Your task to perform on an android device: Open maps Image 0: 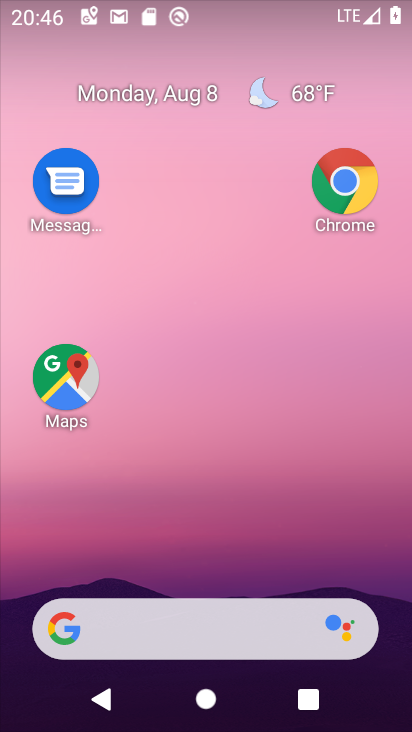
Step 0: click (64, 364)
Your task to perform on an android device: Open maps Image 1: 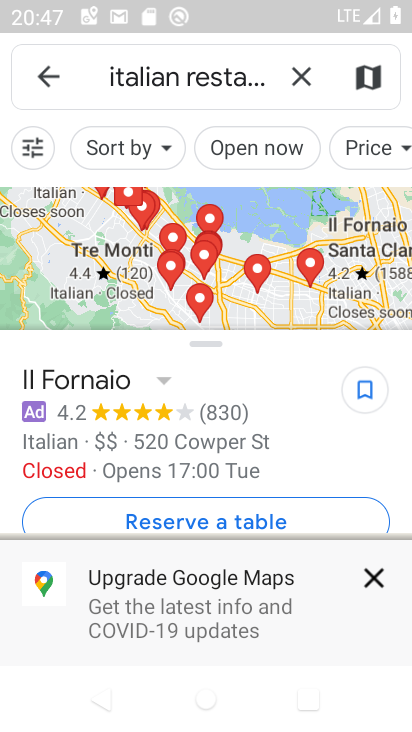
Step 1: click (46, 85)
Your task to perform on an android device: Open maps Image 2: 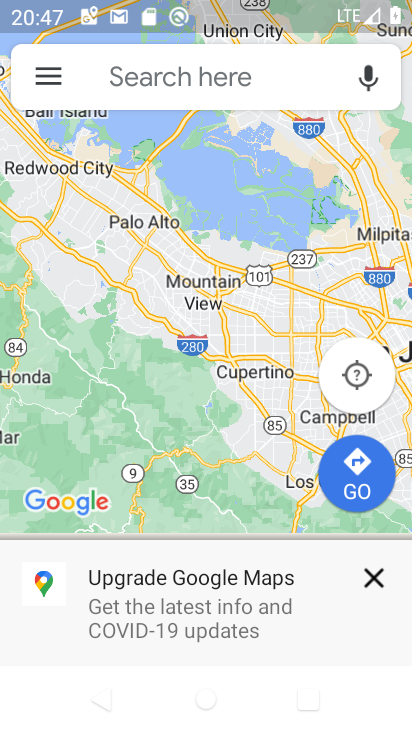
Step 2: task complete